Your task to perform on an android device: turn on javascript in the chrome app Image 0: 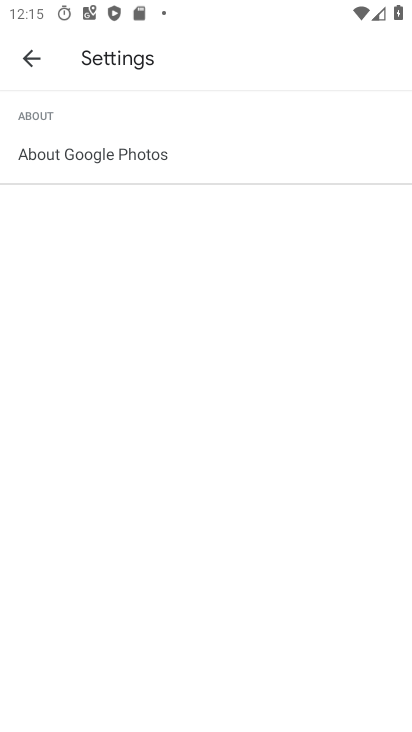
Step 0: press back button
Your task to perform on an android device: turn on javascript in the chrome app Image 1: 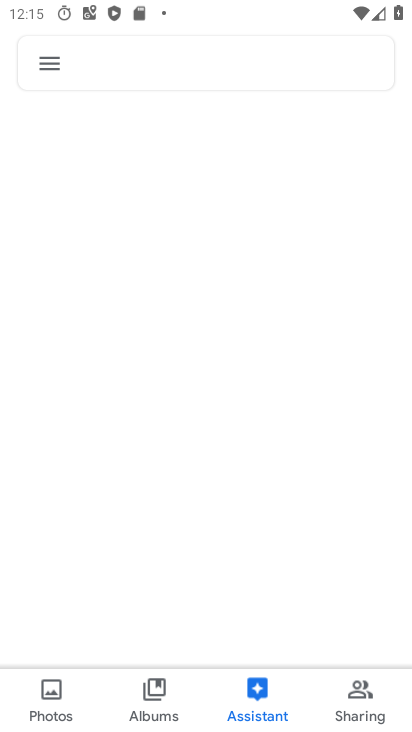
Step 1: press home button
Your task to perform on an android device: turn on javascript in the chrome app Image 2: 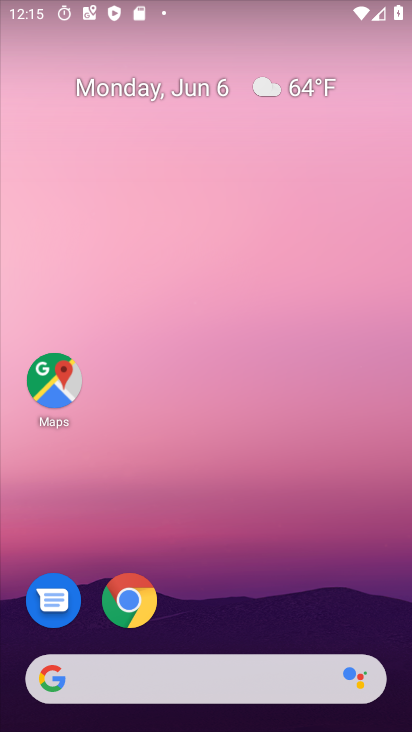
Step 2: drag from (239, 698) to (109, 8)
Your task to perform on an android device: turn on javascript in the chrome app Image 3: 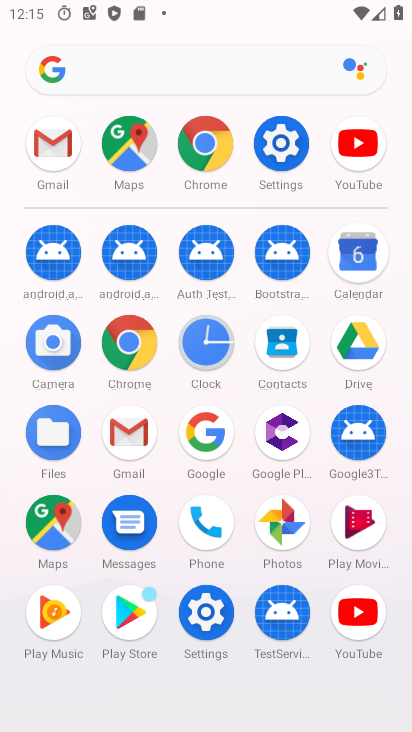
Step 3: click (206, 145)
Your task to perform on an android device: turn on javascript in the chrome app Image 4: 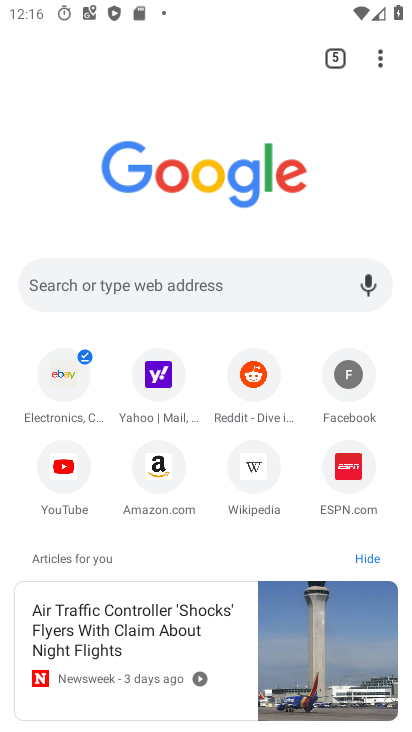
Step 4: click (380, 53)
Your task to perform on an android device: turn on javascript in the chrome app Image 5: 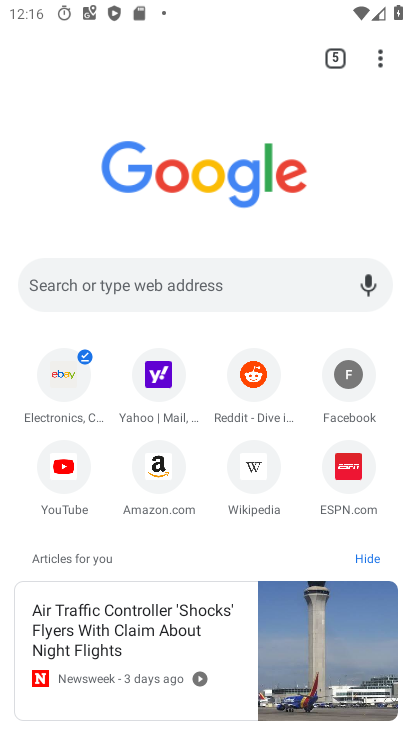
Step 5: drag from (375, 57) to (153, 496)
Your task to perform on an android device: turn on javascript in the chrome app Image 6: 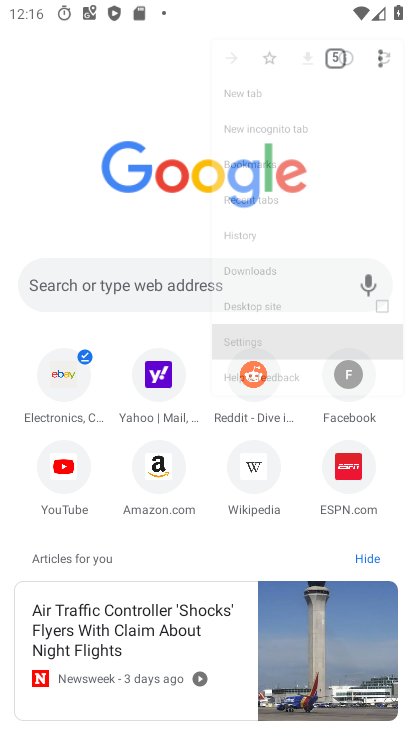
Step 6: click (153, 494)
Your task to perform on an android device: turn on javascript in the chrome app Image 7: 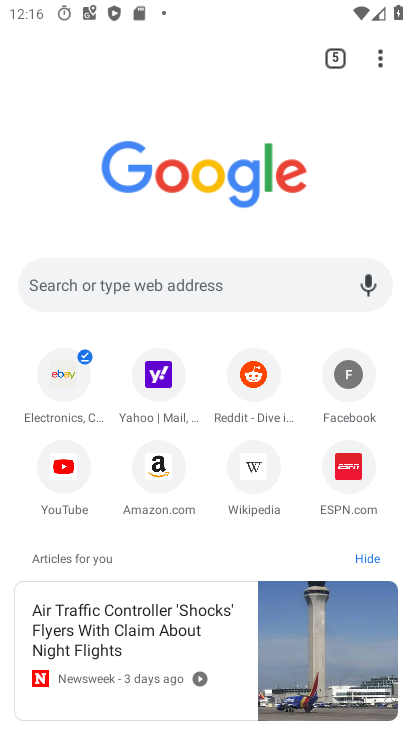
Step 7: click (153, 494)
Your task to perform on an android device: turn on javascript in the chrome app Image 8: 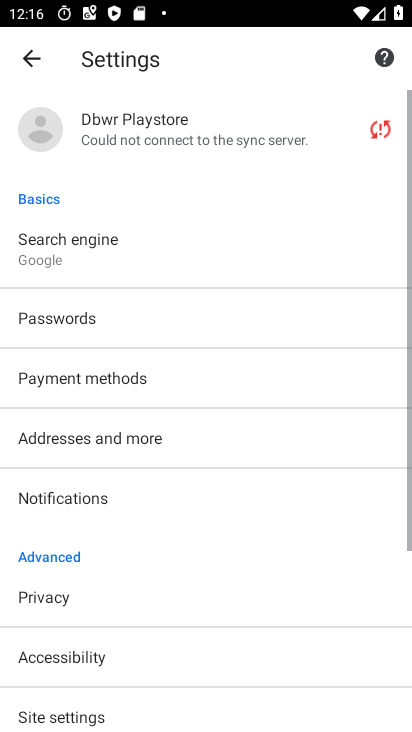
Step 8: drag from (138, 469) to (201, 60)
Your task to perform on an android device: turn on javascript in the chrome app Image 9: 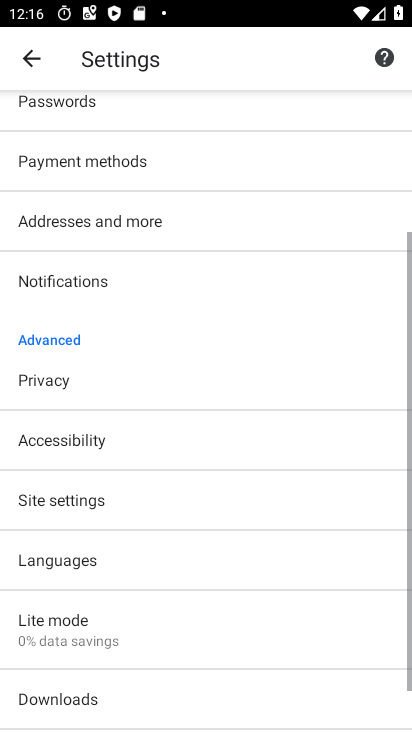
Step 9: drag from (208, 474) to (166, 99)
Your task to perform on an android device: turn on javascript in the chrome app Image 10: 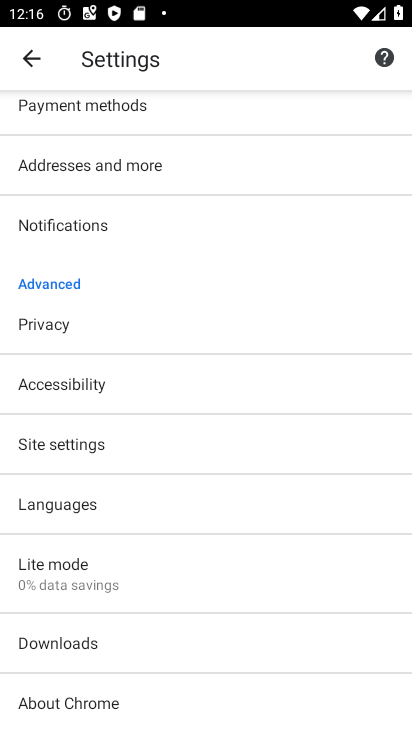
Step 10: click (60, 439)
Your task to perform on an android device: turn on javascript in the chrome app Image 11: 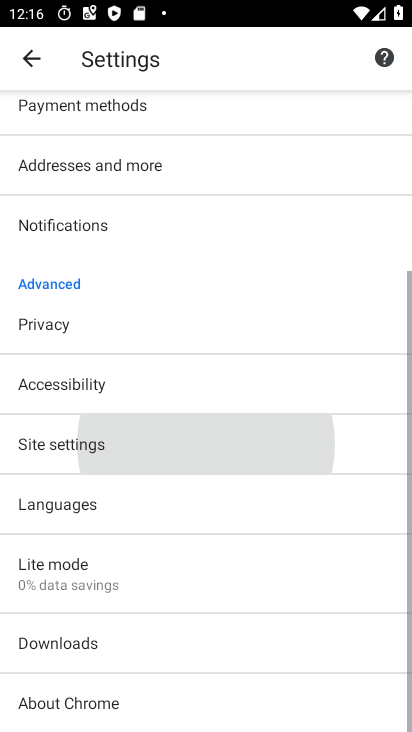
Step 11: click (59, 439)
Your task to perform on an android device: turn on javascript in the chrome app Image 12: 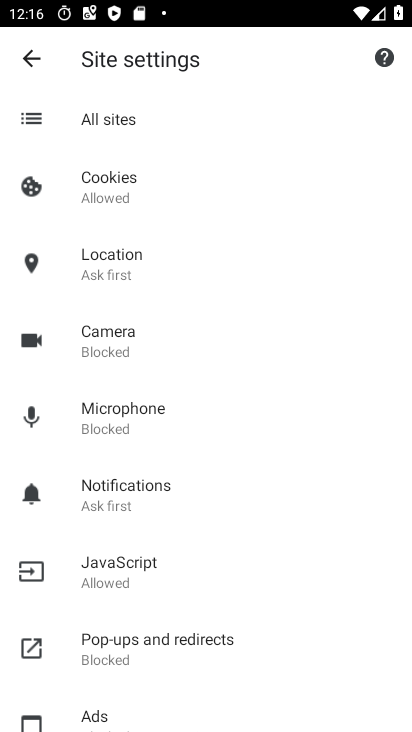
Step 12: click (115, 578)
Your task to perform on an android device: turn on javascript in the chrome app Image 13: 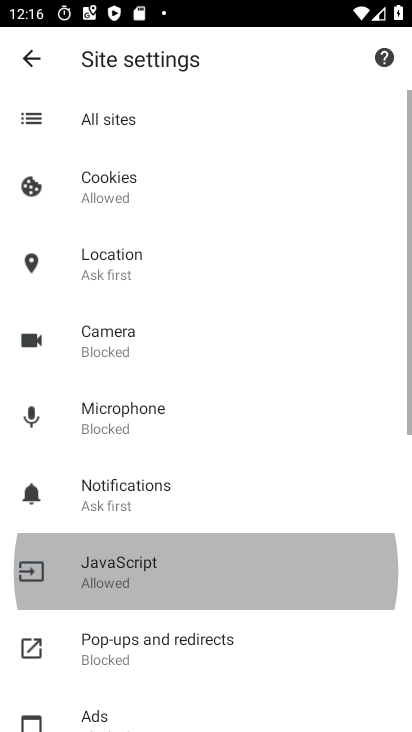
Step 13: click (114, 579)
Your task to perform on an android device: turn on javascript in the chrome app Image 14: 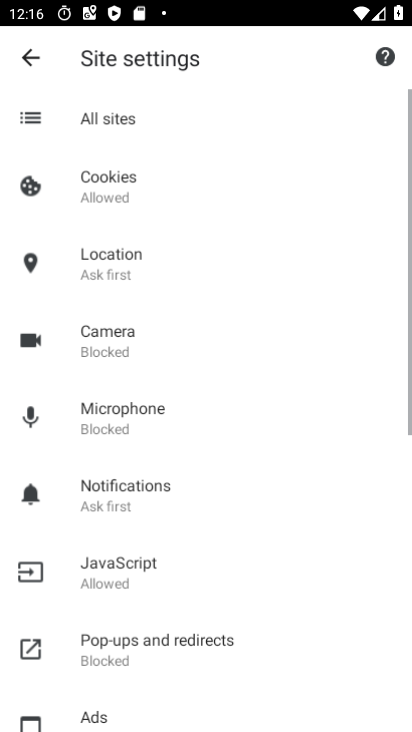
Step 14: click (107, 576)
Your task to perform on an android device: turn on javascript in the chrome app Image 15: 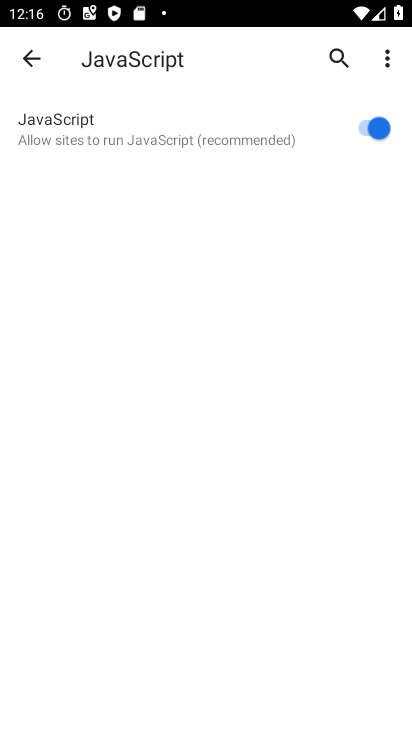
Step 15: click (94, 553)
Your task to perform on an android device: turn on javascript in the chrome app Image 16: 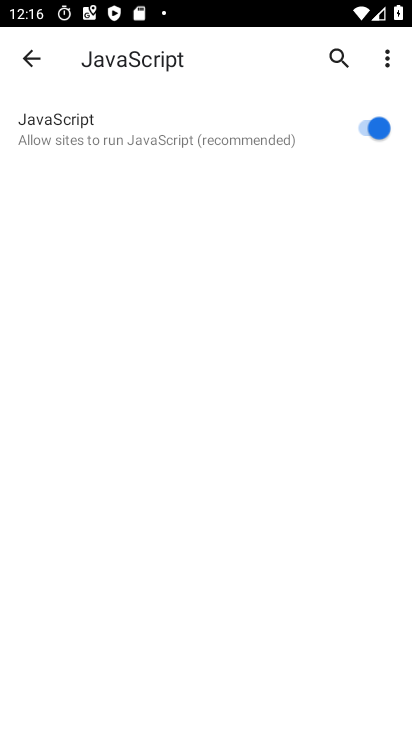
Step 16: task complete